Your task to perform on an android device: make emails show in primary in the gmail app Image 0: 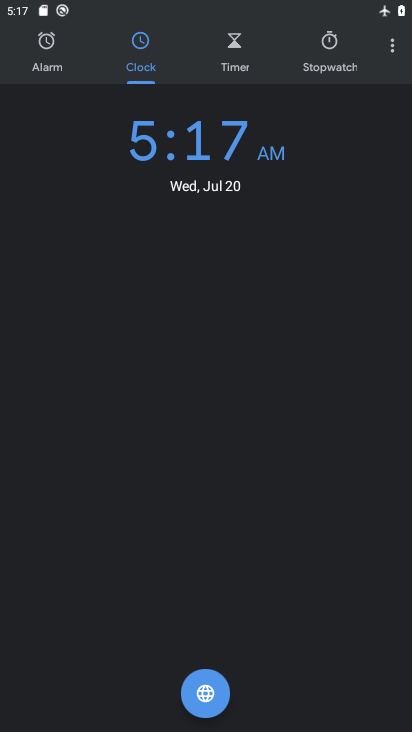
Step 0: press home button
Your task to perform on an android device: make emails show in primary in the gmail app Image 1: 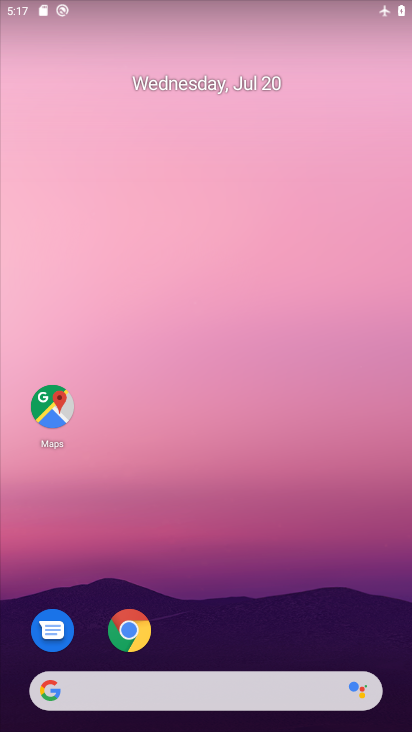
Step 1: drag from (262, 647) to (270, 19)
Your task to perform on an android device: make emails show in primary in the gmail app Image 2: 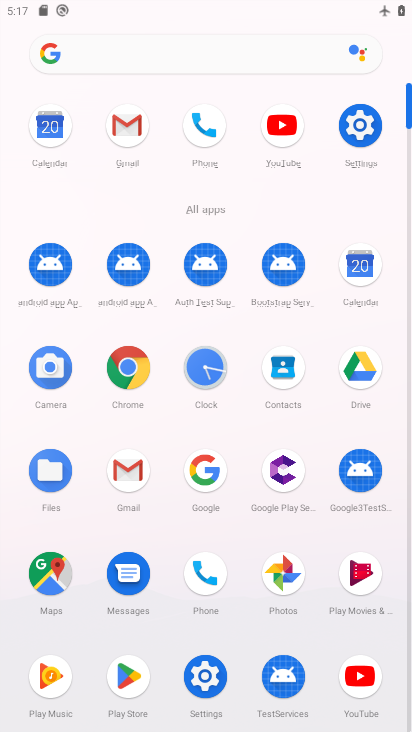
Step 2: click (116, 135)
Your task to perform on an android device: make emails show in primary in the gmail app Image 3: 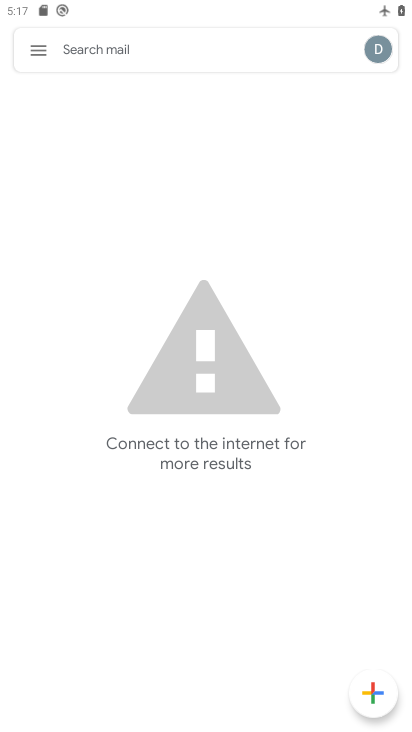
Step 3: click (31, 62)
Your task to perform on an android device: make emails show in primary in the gmail app Image 4: 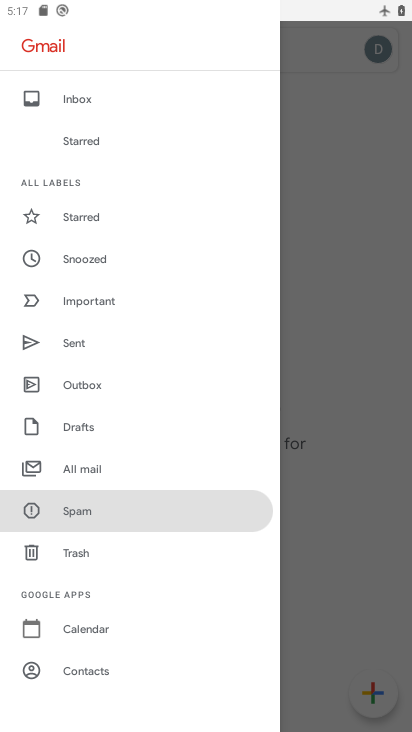
Step 4: drag from (216, 629) to (165, 140)
Your task to perform on an android device: make emails show in primary in the gmail app Image 5: 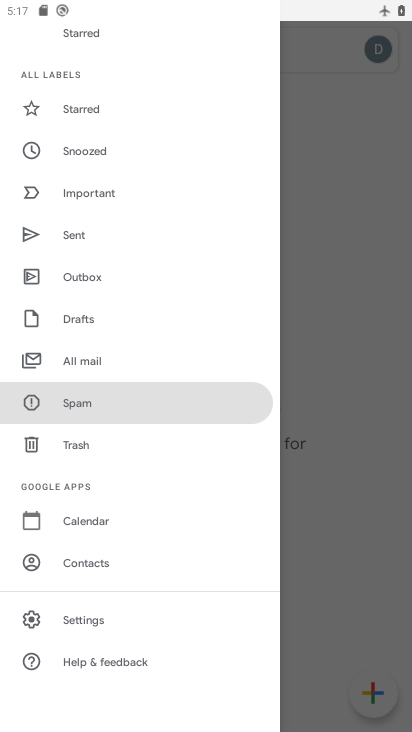
Step 5: click (95, 617)
Your task to perform on an android device: make emails show in primary in the gmail app Image 6: 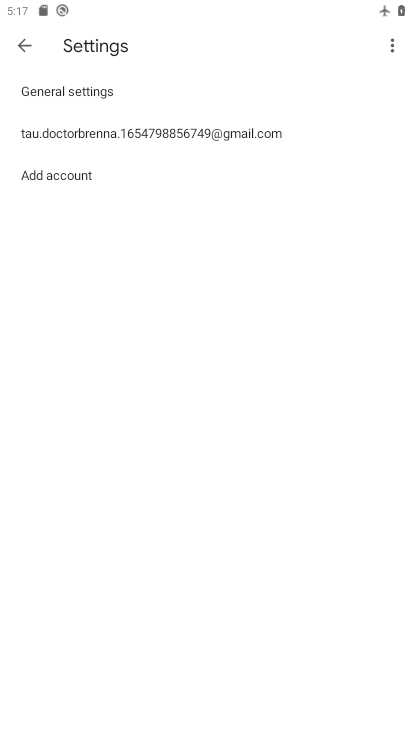
Step 6: click (154, 139)
Your task to perform on an android device: make emails show in primary in the gmail app Image 7: 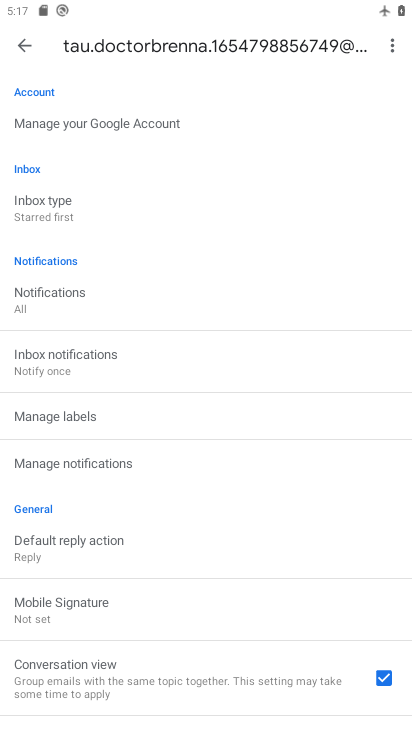
Step 7: task complete